Your task to perform on an android device: Go to calendar. Show me events next week Image 0: 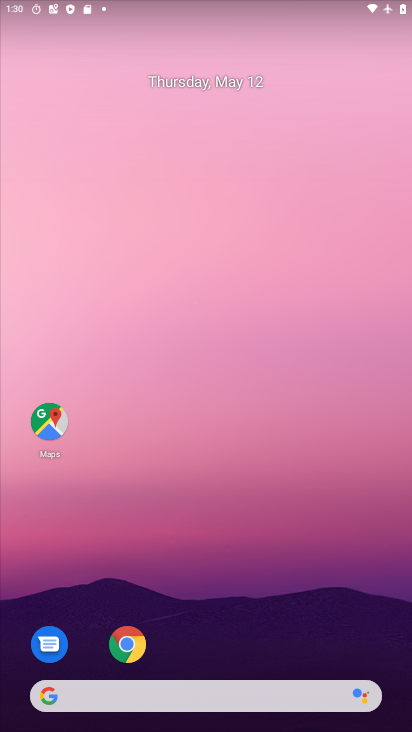
Step 0: click (223, 79)
Your task to perform on an android device: Go to calendar. Show me events next week Image 1: 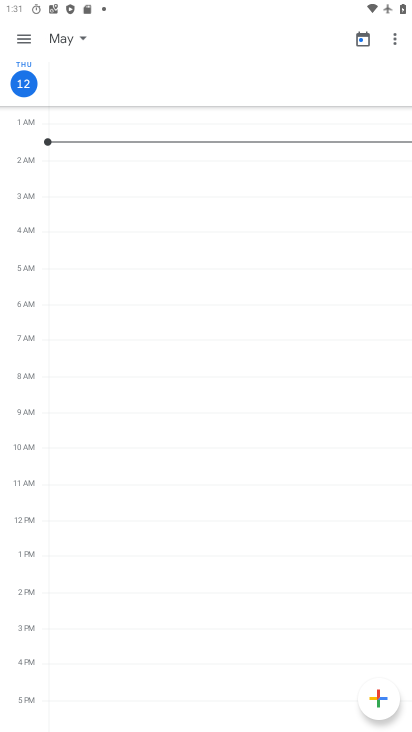
Step 1: press home button
Your task to perform on an android device: Go to calendar. Show me events next week Image 2: 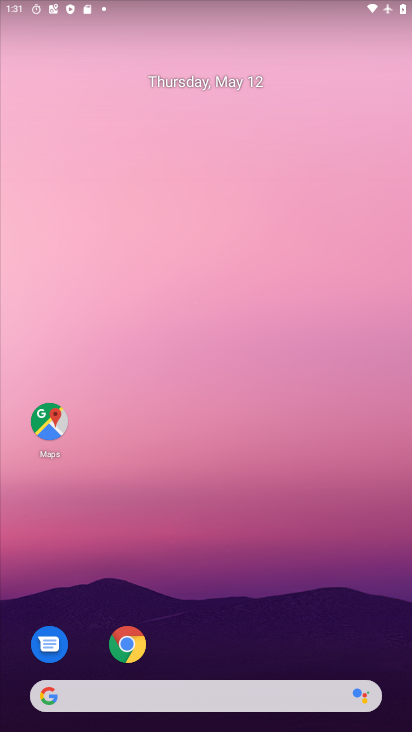
Step 2: drag from (277, 587) to (238, 26)
Your task to perform on an android device: Go to calendar. Show me events next week Image 3: 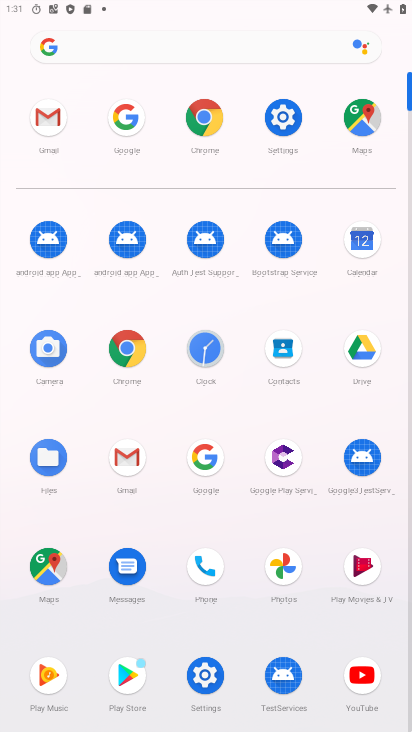
Step 3: click (359, 247)
Your task to perform on an android device: Go to calendar. Show me events next week Image 4: 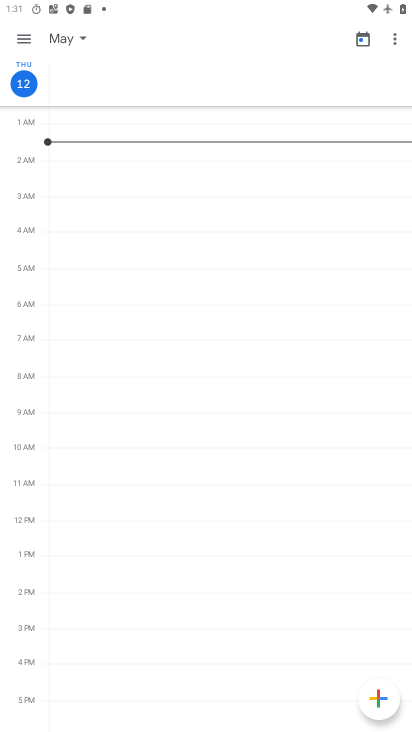
Step 4: click (23, 37)
Your task to perform on an android device: Go to calendar. Show me events next week Image 5: 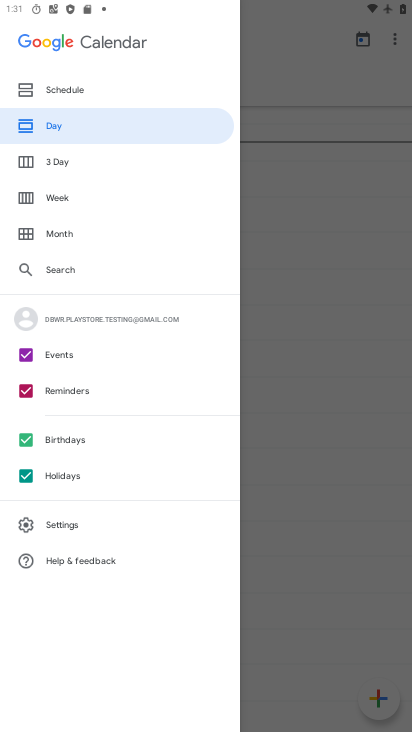
Step 5: click (91, 192)
Your task to perform on an android device: Go to calendar. Show me events next week Image 6: 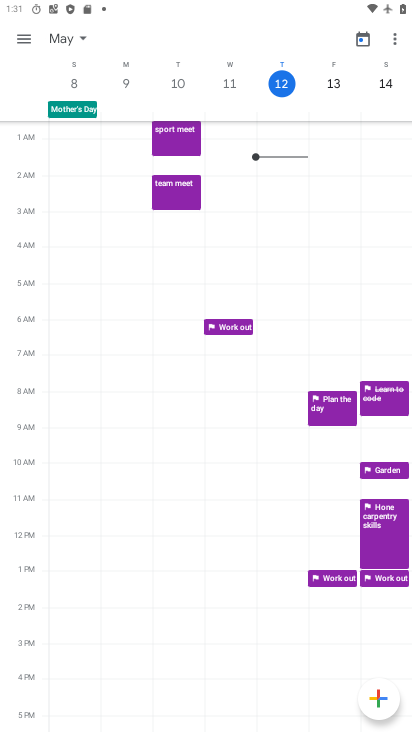
Step 6: click (85, 37)
Your task to perform on an android device: Go to calendar. Show me events next week Image 7: 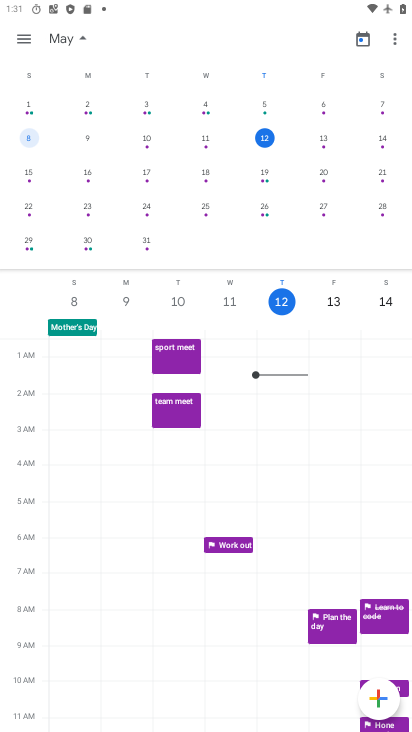
Step 7: click (36, 169)
Your task to perform on an android device: Go to calendar. Show me events next week Image 8: 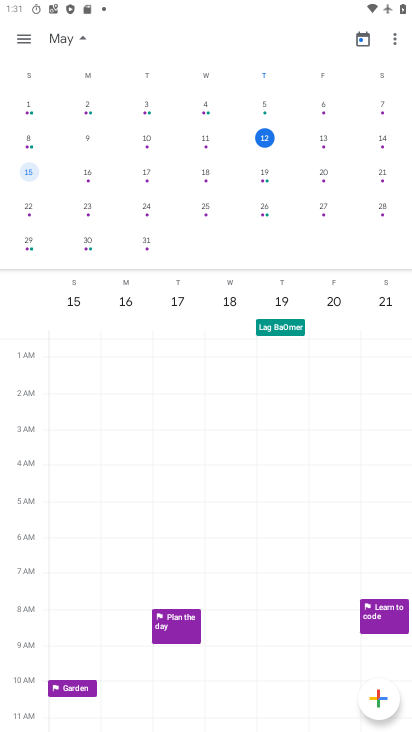
Step 8: drag from (25, 613) to (20, 260)
Your task to perform on an android device: Go to calendar. Show me events next week Image 9: 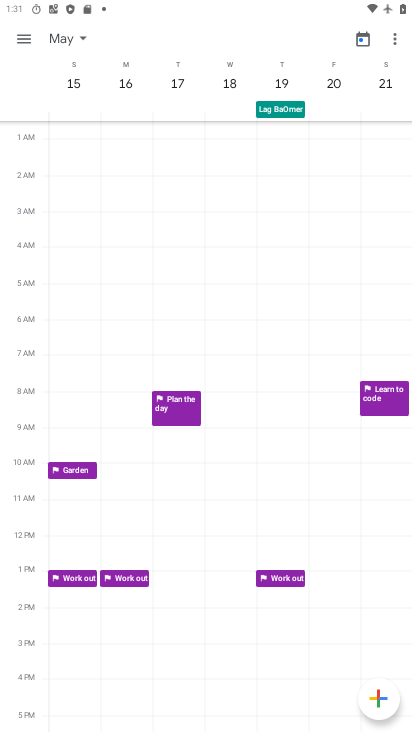
Step 9: drag from (19, 632) to (44, 254)
Your task to perform on an android device: Go to calendar. Show me events next week Image 10: 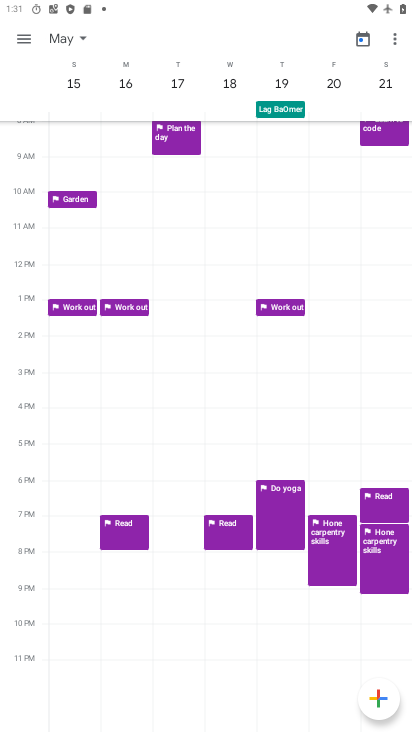
Step 10: click (44, 212)
Your task to perform on an android device: Go to calendar. Show me events next week Image 11: 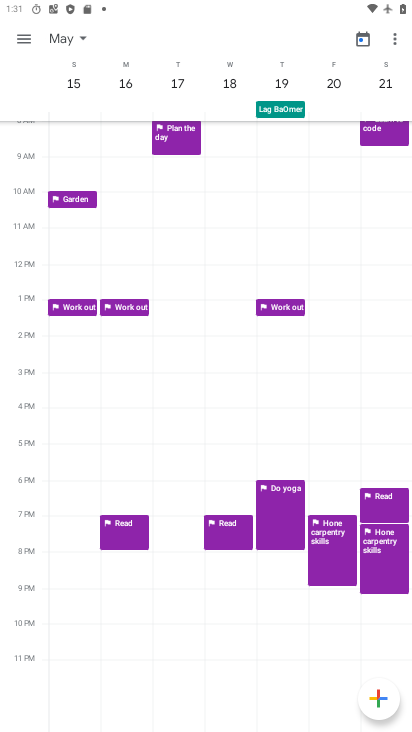
Step 11: task complete